Your task to perform on an android device: Open sound settings Image 0: 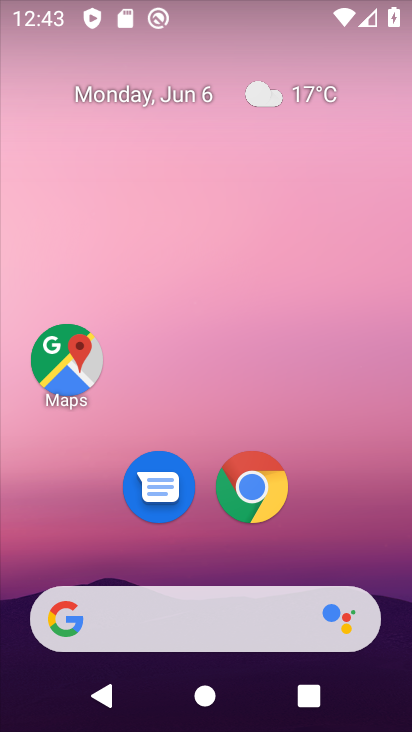
Step 0: drag from (322, 545) to (205, 80)
Your task to perform on an android device: Open sound settings Image 1: 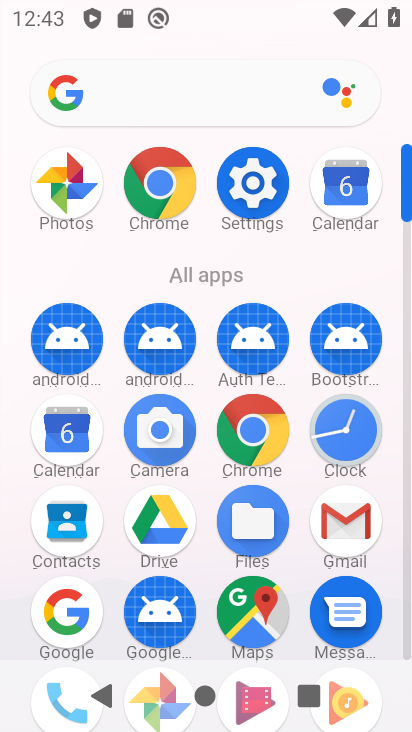
Step 1: click (252, 183)
Your task to perform on an android device: Open sound settings Image 2: 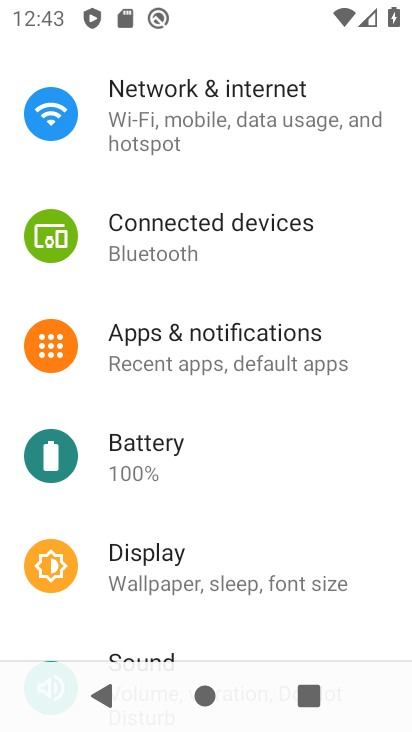
Step 2: drag from (186, 288) to (247, 187)
Your task to perform on an android device: Open sound settings Image 3: 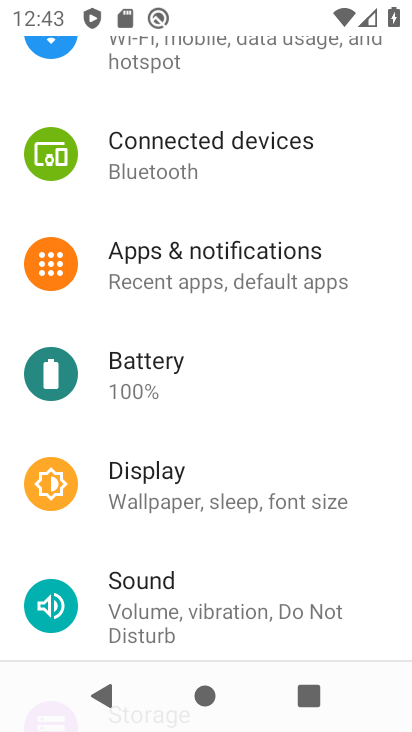
Step 3: drag from (208, 352) to (287, 242)
Your task to perform on an android device: Open sound settings Image 4: 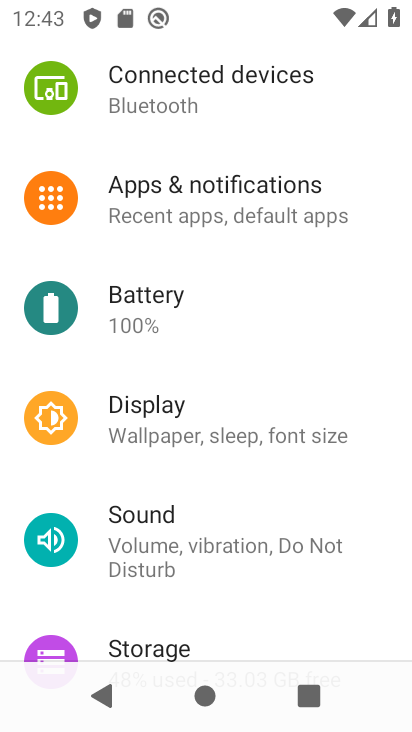
Step 4: drag from (143, 357) to (201, 274)
Your task to perform on an android device: Open sound settings Image 5: 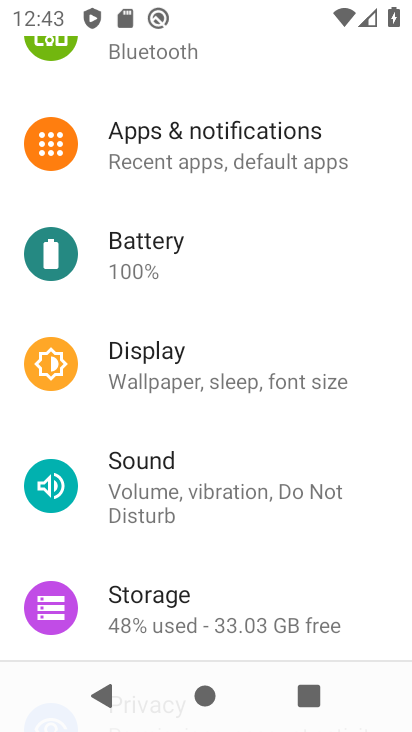
Step 5: drag from (170, 403) to (217, 305)
Your task to perform on an android device: Open sound settings Image 6: 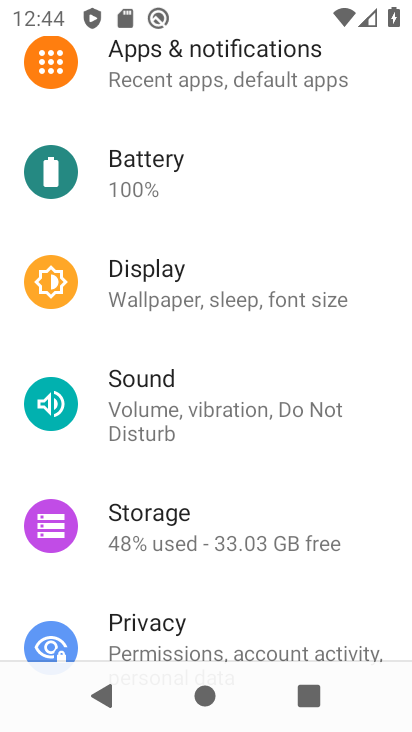
Step 6: drag from (181, 464) to (197, 350)
Your task to perform on an android device: Open sound settings Image 7: 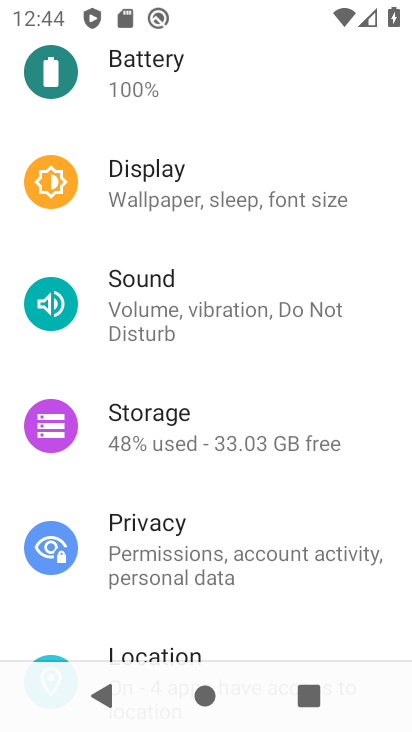
Step 7: drag from (178, 480) to (265, 373)
Your task to perform on an android device: Open sound settings Image 8: 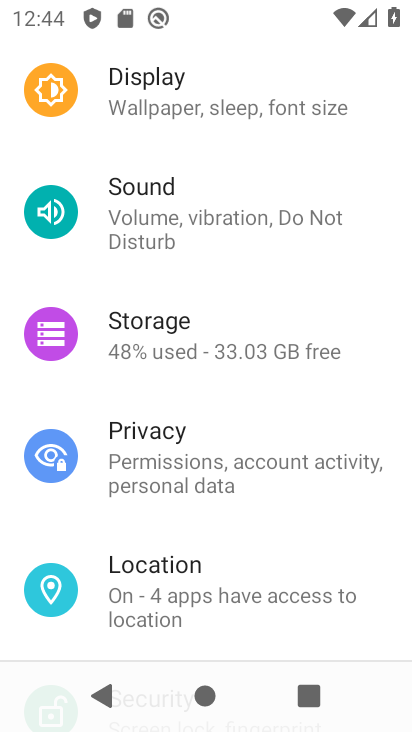
Step 8: click (285, 235)
Your task to perform on an android device: Open sound settings Image 9: 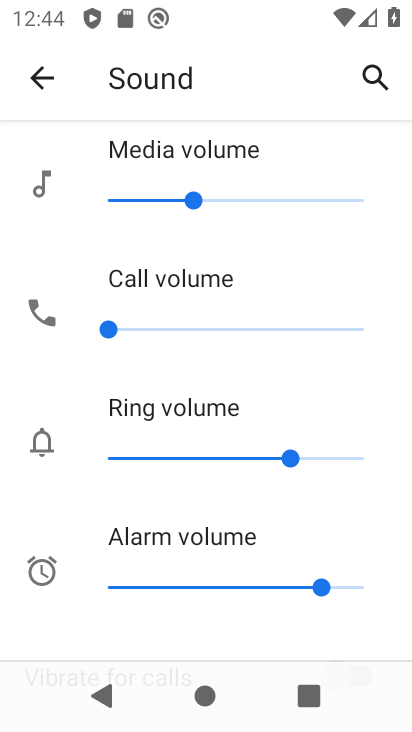
Step 9: task complete